Your task to perform on an android device: add a label to a message in the gmail app Image 0: 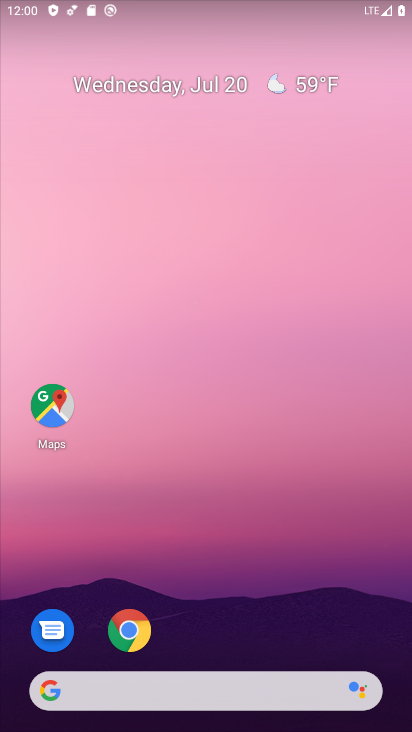
Step 0: drag from (246, 557) to (229, 224)
Your task to perform on an android device: add a label to a message in the gmail app Image 1: 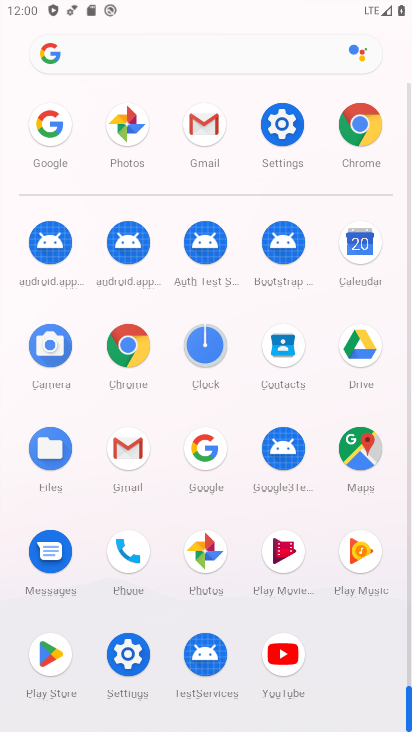
Step 1: click (137, 457)
Your task to perform on an android device: add a label to a message in the gmail app Image 2: 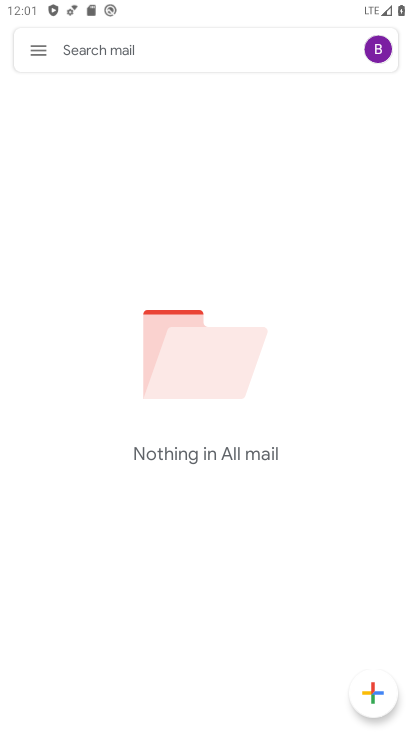
Step 2: click (36, 56)
Your task to perform on an android device: add a label to a message in the gmail app Image 3: 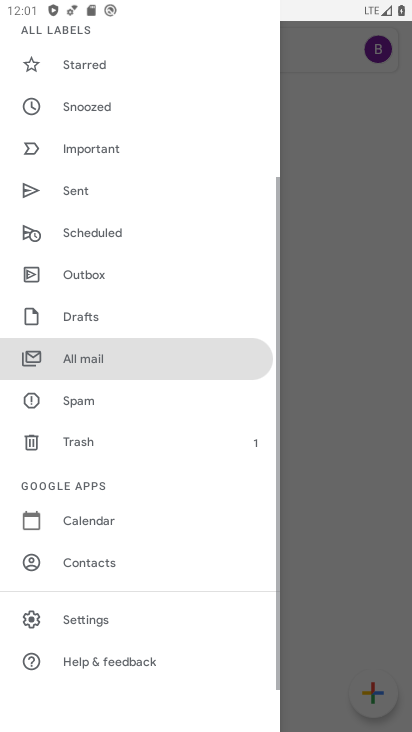
Step 3: click (158, 351)
Your task to perform on an android device: add a label to a message in the gmail app Image 4: 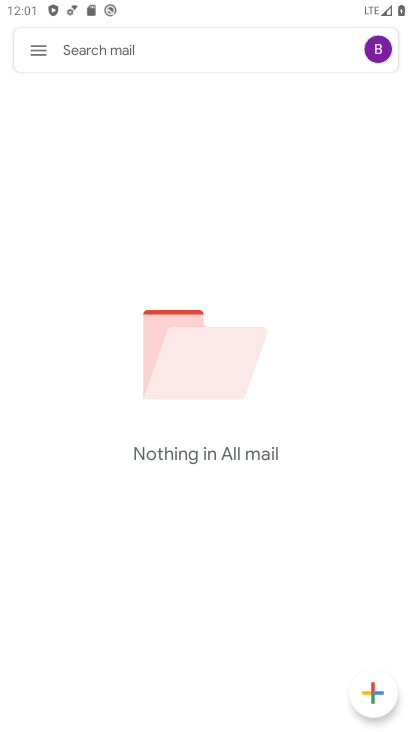
Step 4: task complete